Your task to perform on an android device: change keyboard looks Image 0: 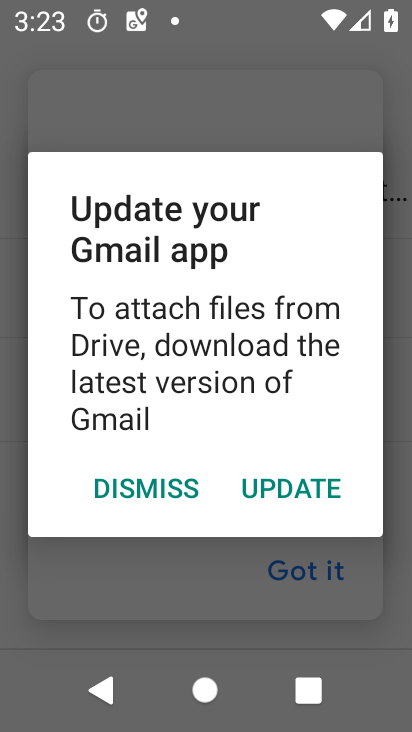
Step 0: click (172, 486)
Your task to perform on an android device: change keyboard looks Image 1: 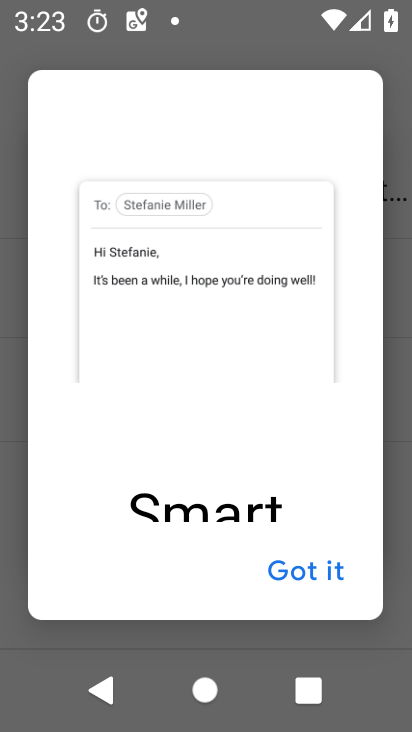
Step 1: press home button
Your task to perform on an android device: change keyboard looks Image 2: 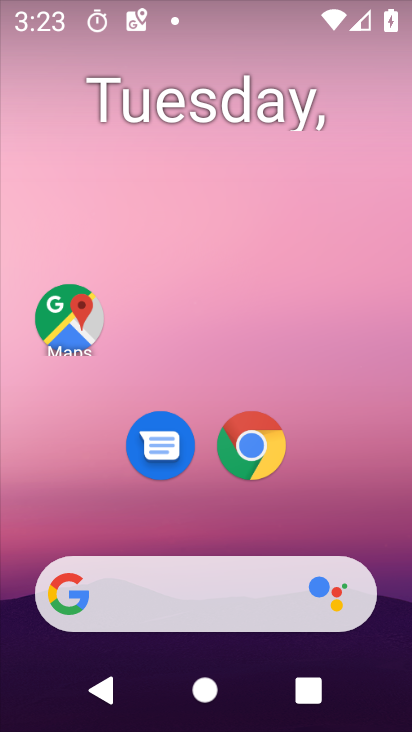
Step 2: drag from (237, 535) to (168, 15)
Your task to perform on an android device: change keyboard looks Image 3: 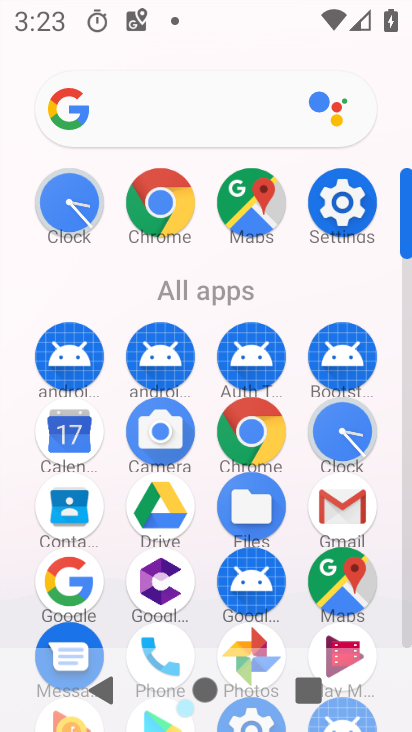
Step 3: click (339, 206)
Your task to perform on an android device: change keyboard looks Image 4: 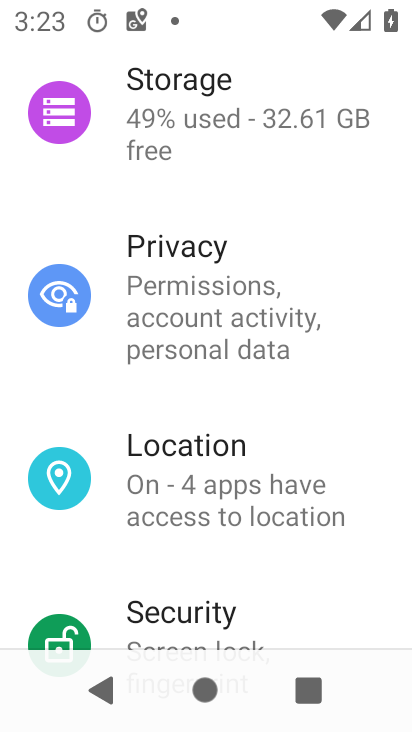
Step 4: drag from (251, 562) to (192, 79)
Your task to perform on an android device: change keyboard looks Image 5: 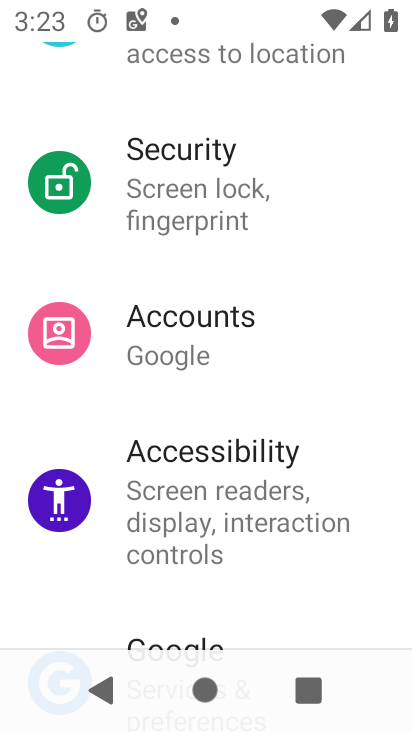
Step 5: drag from (301, 515) to (274, 173)
Your task to perform on an android device: change keyboard looks Image 6: 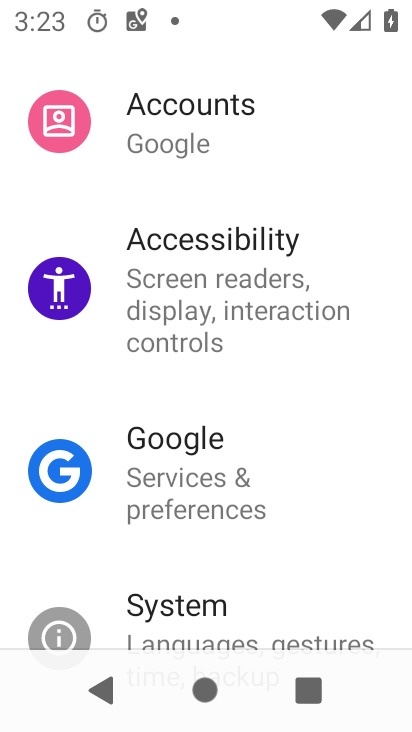
Step 6: drag from (201, 517) to (169, 115)
Your task to perform on an android device: change keyboard looks Image 7: 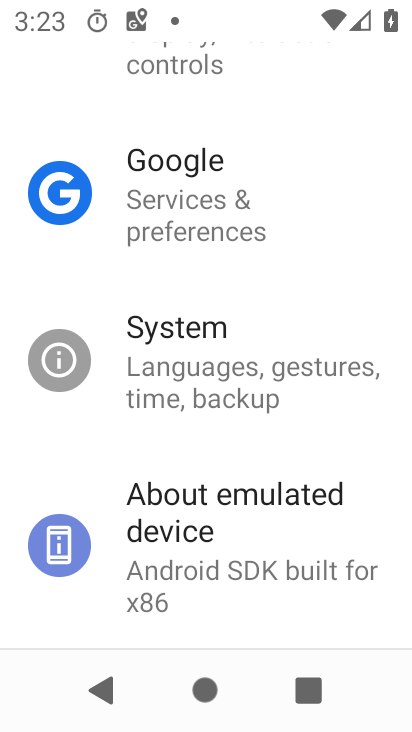
Step 7: click (188, 401)
Your task to perform on an android device: change keyboard looks Image 8: 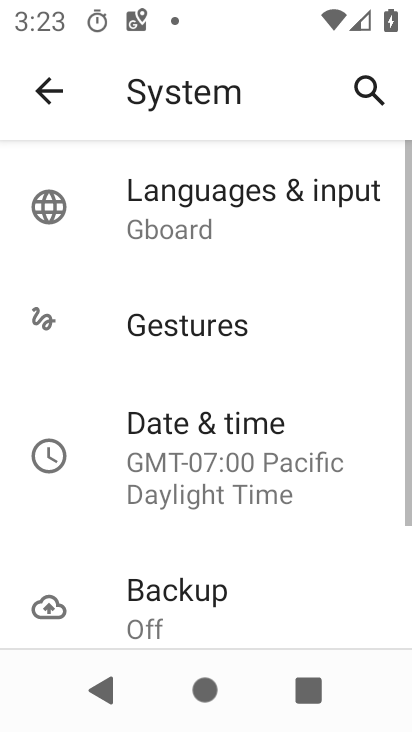
Step 8: click (182, 242)
Your task to perform on an android device: change keyboard looks Image 9: 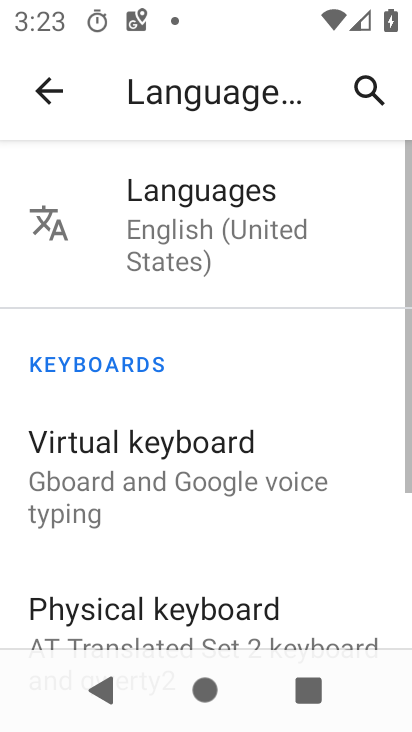
Step 9: click (167, 469)
Your task to perform on an android device: change keyboard looks Image 10: 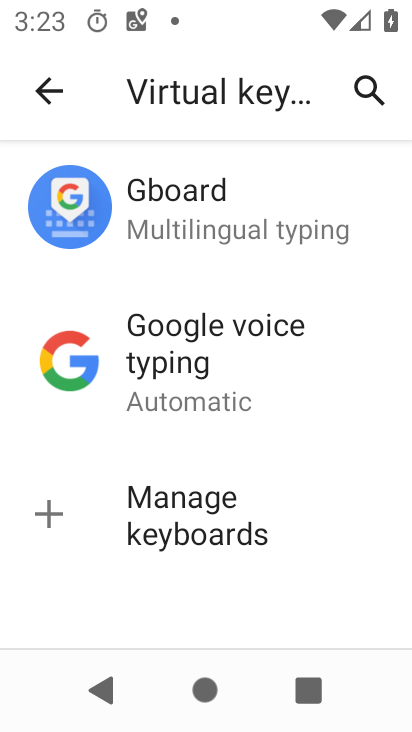
Step 10: click (161, 217)
Your task to perform on an android device: change keyboard looks Image 11: 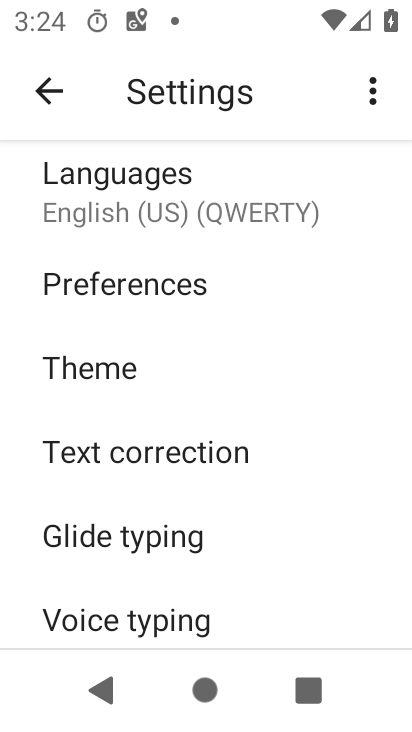
Step 11: click (124, 366)
Your task to perform on an android device: change keyboard looks Image 12: 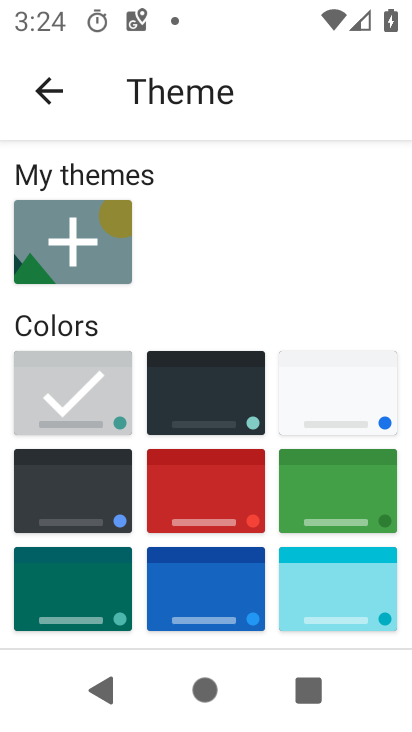
Step 12: click (155, 390)
Your task to perform on an android device: change keyboard looks Image 13: 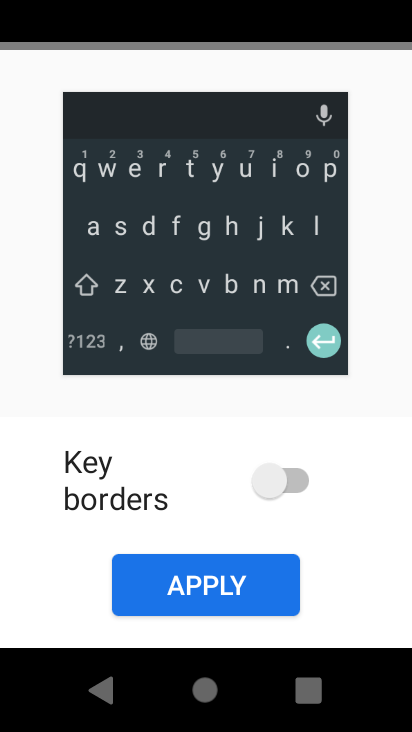
Step 13: click (202, 577)
Your task to perform on an android device: change keyboard looks Image 14: 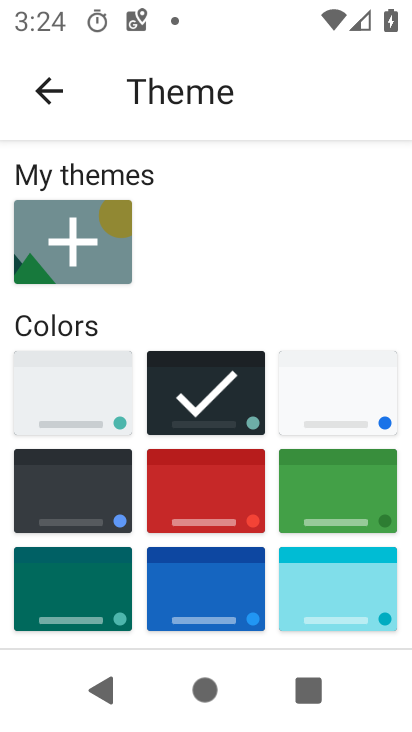
Step 14: task complete